Your task to perform on an android device: check out phone information Image 0: 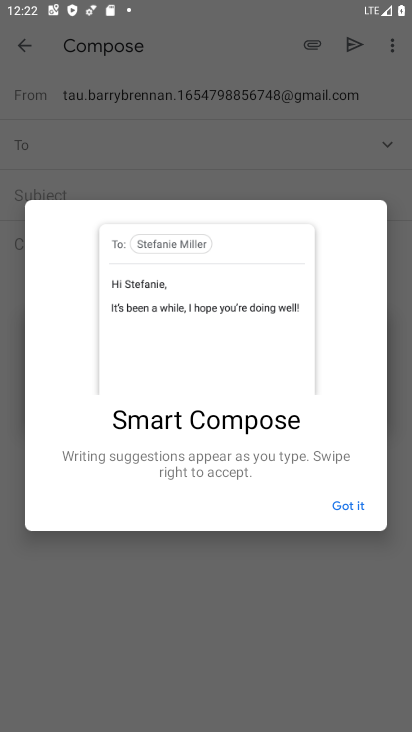
Step 0: press home button
Your task to perform on an android device: check out phone information Image 1: 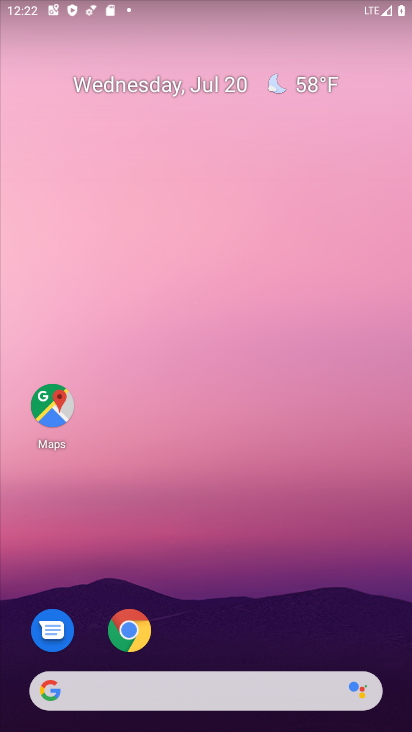
Step 1: drag from (299, 549) to (358, 283)
Your task to perform on an android device: check out phone information Image 2: 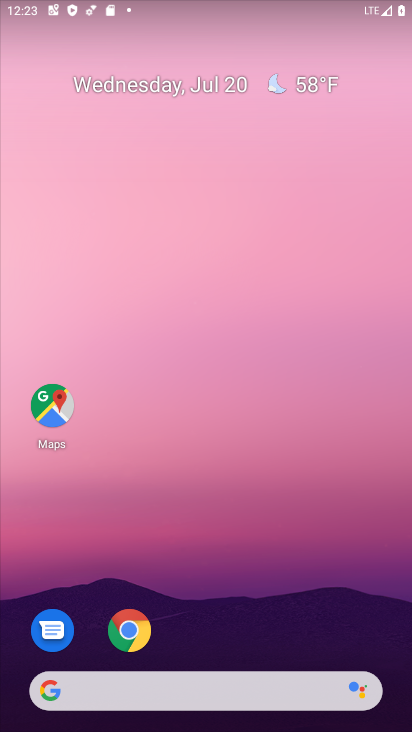
Step 2: drag from (269, 648) to (242, 12)
Your task to perform on an android device: check out phone information Image 3: 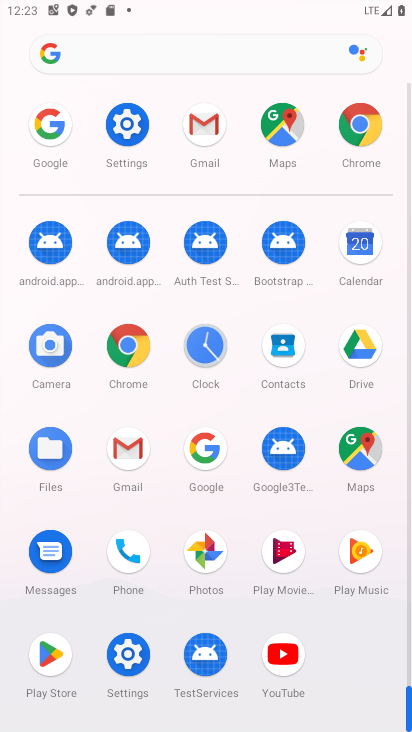
Step 3: click (133, 123)
Your task to perform on an android device: check out phone information Image 4: 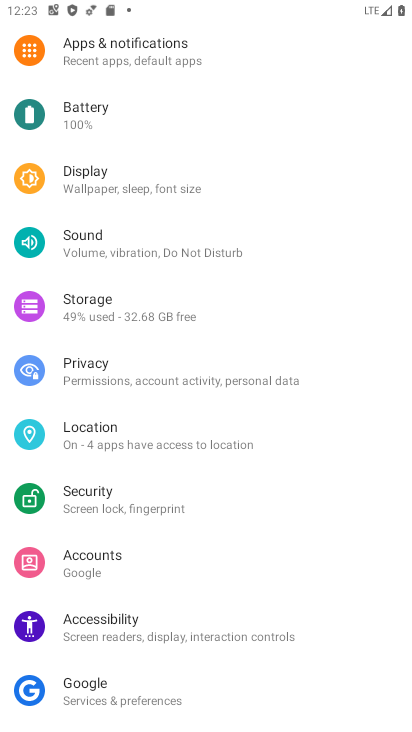
Step 4: drag from (181, 579) to (267, 204)
Your task to perform on an android device: check out phone information Image 5: 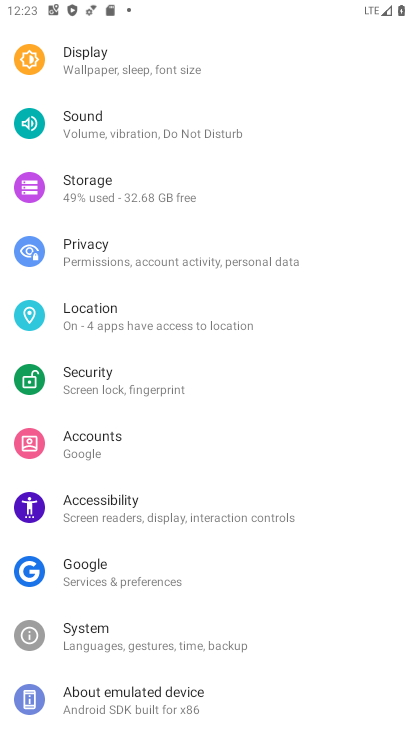
Step 5: drag from (208, 622) to (257, 373)
Your task to perform on an android device: check out phone information Image 6: 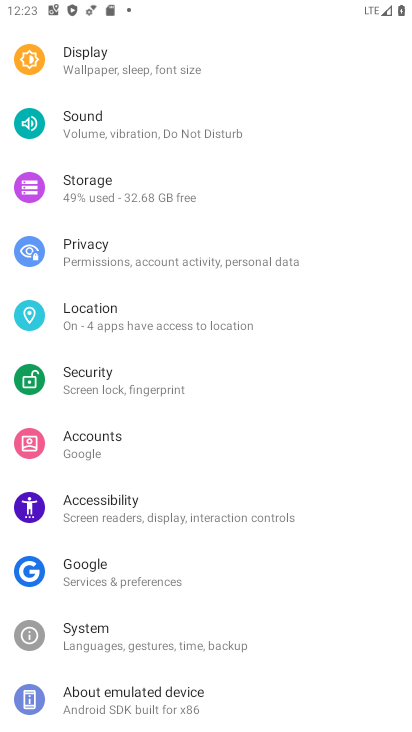
Step 6: click (203, 700)
Your task to perform on an android device: check out phone information Image 7: 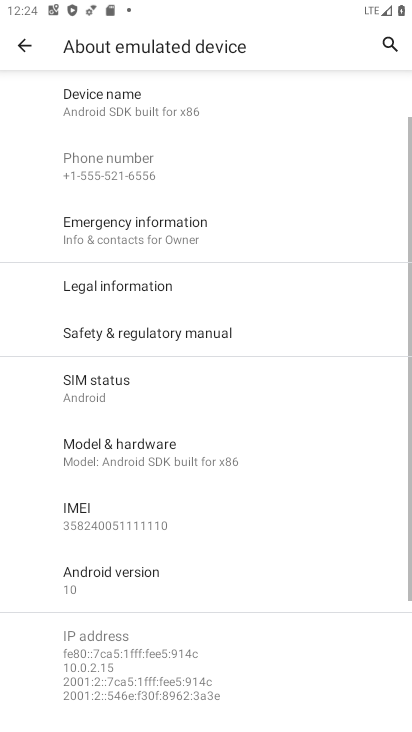
Step 7: task complete